Your task to perform on an android device: What's the latest news in space science? Image 0: 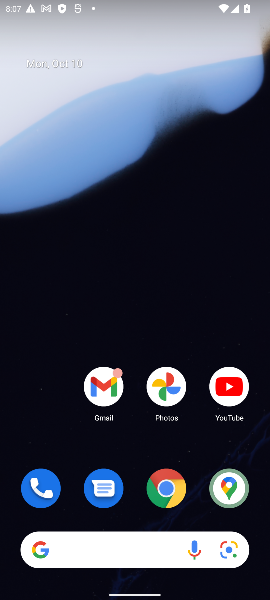
Step 0: drag from (126, 458) to (107, 60)
Your task to perform on an android device: What's the latest news in space science? Image 1: 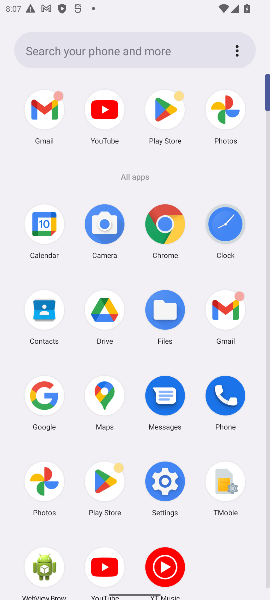
Step 1: click (173, 225)
Your task to perform on an android device: What's the latest news in space science? Image 2: 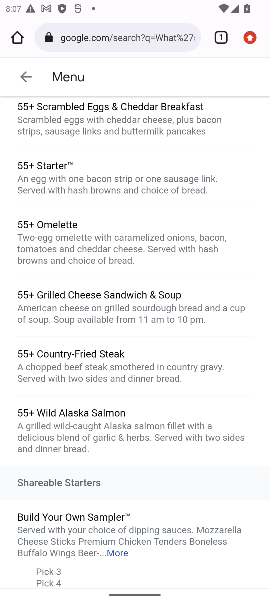
Step 2: click (158, 42)
Your task to perform on an android device: What's the latest news in space science? Image 3: 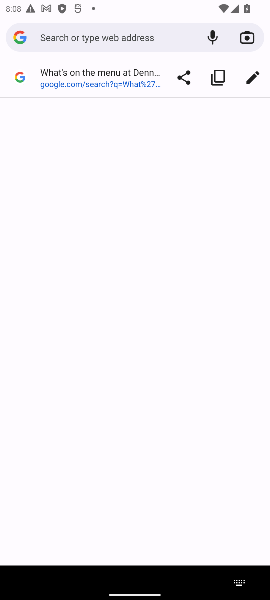
Step 3: type "What's the latest news in space science?"
Your task to perform on an android device: What's the latest news in space science? Image 4: 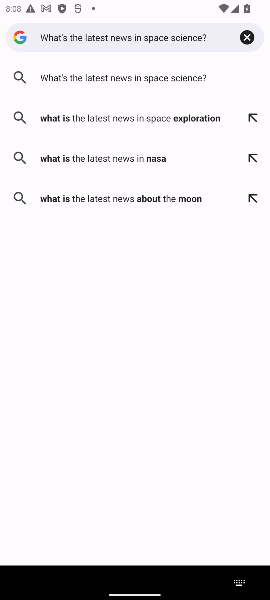
Step 4: press enter
Your task to perform on an android device: What's the latest news in space science? Image 5: 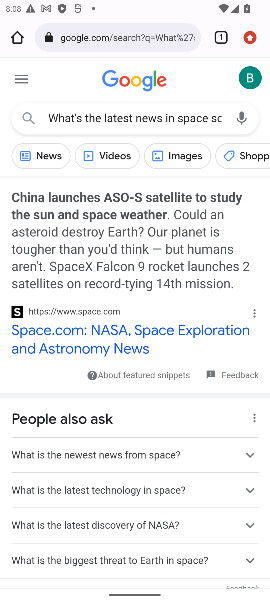
Step 5: task complete